Your task to perform on an android device: Open calendar and show me the first week of next month Image 0: 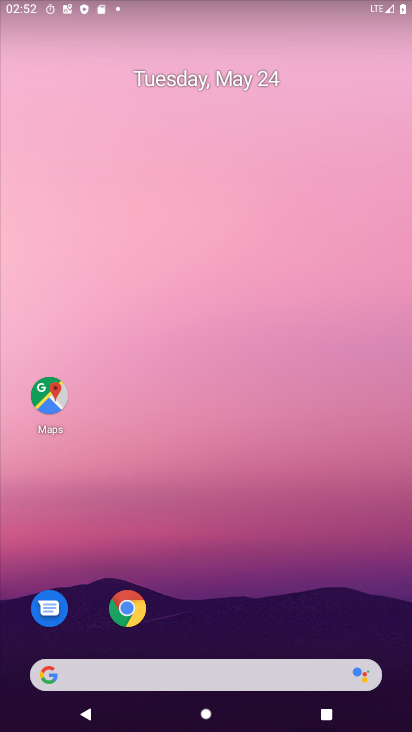
Step 0: drag from (243, 622) to (209, 278)
Your task to perform on an android device: Open calendar and show me the first week of next month Image 1: 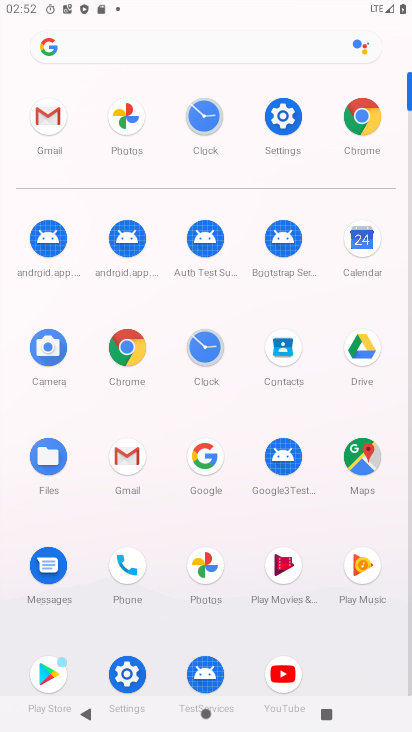
Step 1: click (358, 265)
Your task to perform on an android device: Open calendar and show me the first week of next month Image 2: 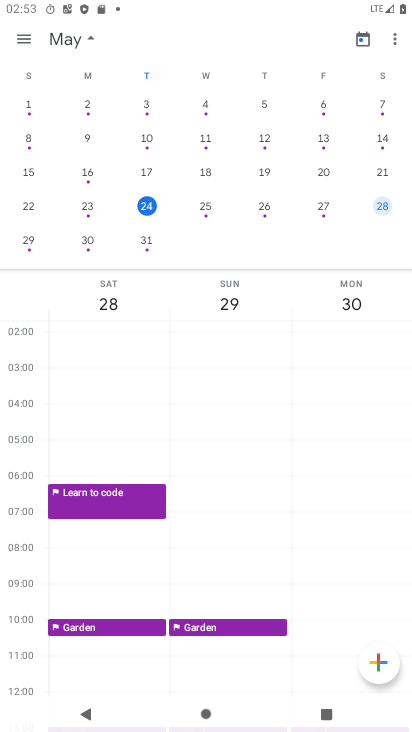
Step 2: drag from (389, 166) to (38, 123)
Your task to perform on an android device: Open calendar and show me the first week of next month Image 3: 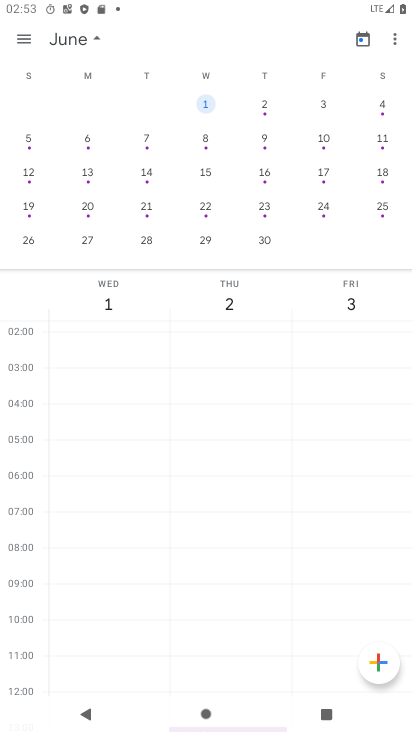
Step 3: click (24, 37)
Your task to perform on an android device: Open calendar and show me the first week of next month Image 4: 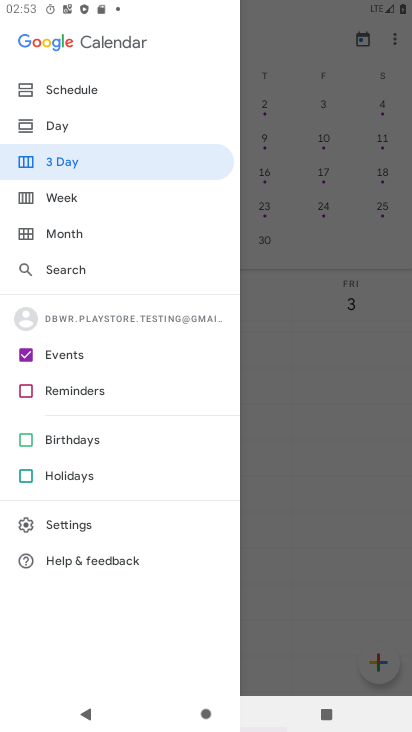
Step 4: click (69, 203)
Your task to perform on an android device: Open calendar and show me the first week of next month Image 5: 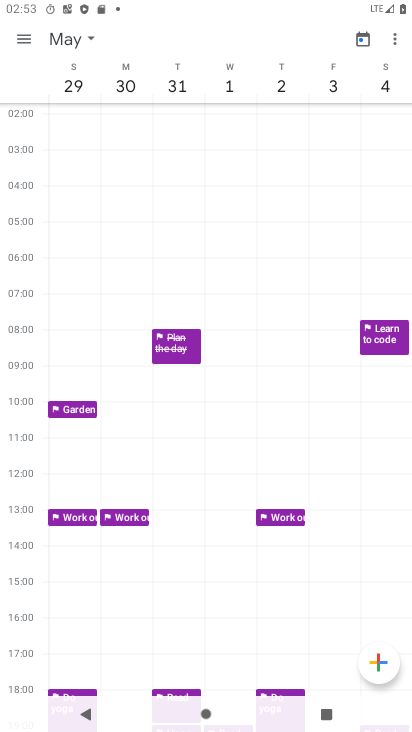
Step 5: click (89, 34)
Your task to perform on an android device: Open calendar and show me the first week of next month Image 6: 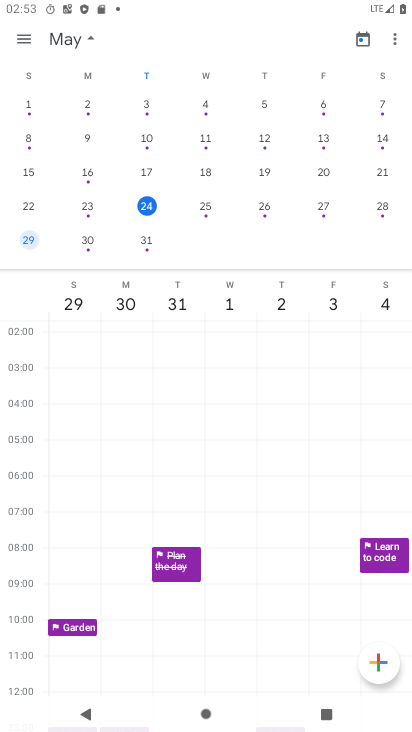
Step 6: drag from (388, 178) to (55, 160)
Your task to perform on an android device: Open calendar and show me the first week of next month Image 7: 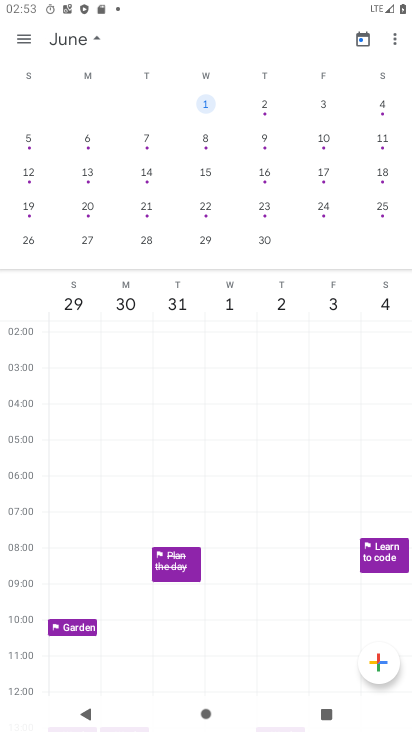
Step 7: click (212, 103)
Your task to perform on an android device: Open calendar and show me the first week of next month Image 8: 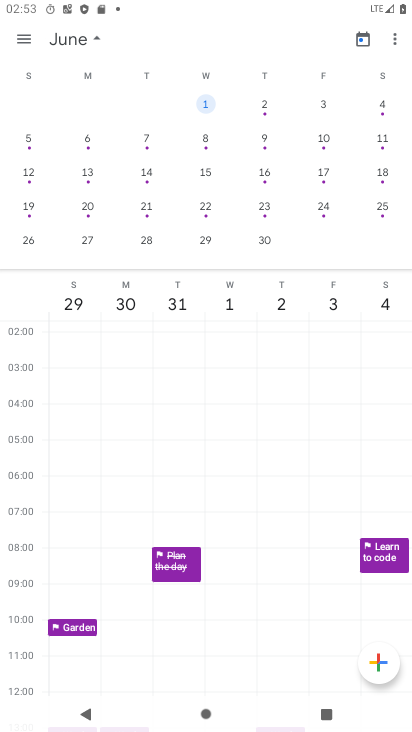
Step 8: task complete